Your task to perform on an android device: Play the last video I watched on Youtube Image 0: 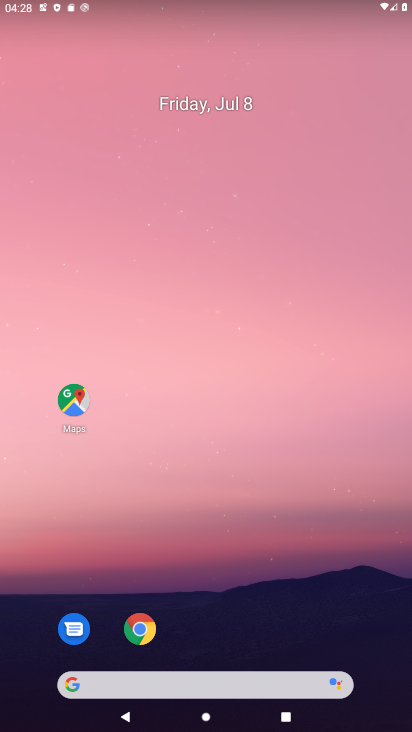
Step 0: drag from (225, 718) to (224, 8)
Your task to perform on an android device: Play the last video I watched on Youtube Image 1: 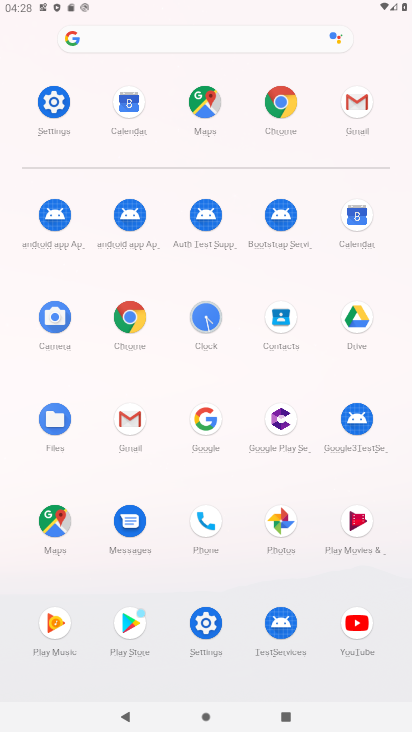
Step 1: click (356, 623)
Your task to perform on an android device: Play the last video I watched on Youtube Image 2: 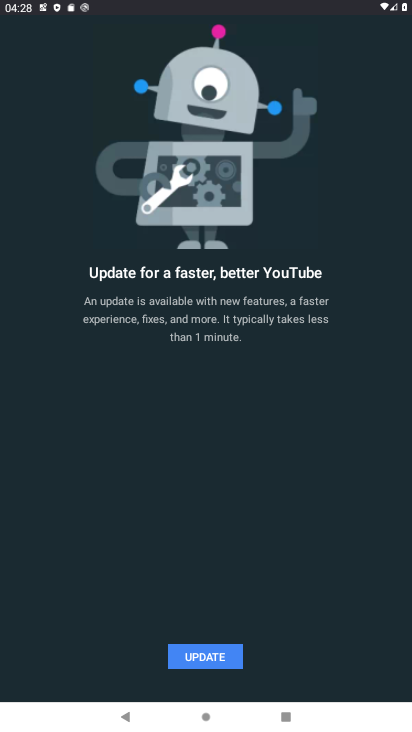
Step 2: task complete